Your task to perform on an android device: Go to Reddit.com Image 0: 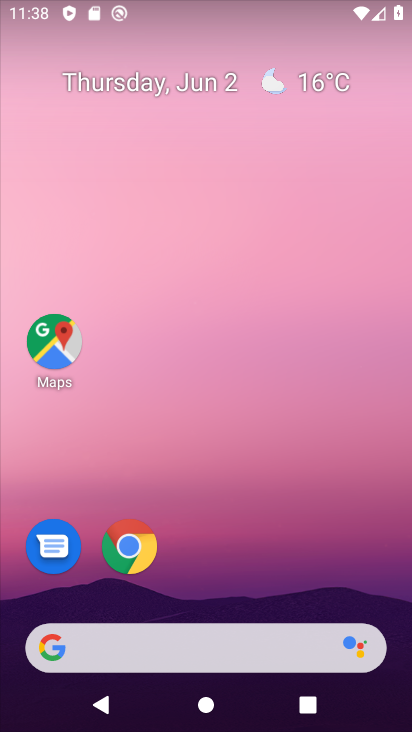
Step 0: drag from (313, 558) to (337, 171)
Your task to perform on an android device: Go to Reddit.com Image 1: 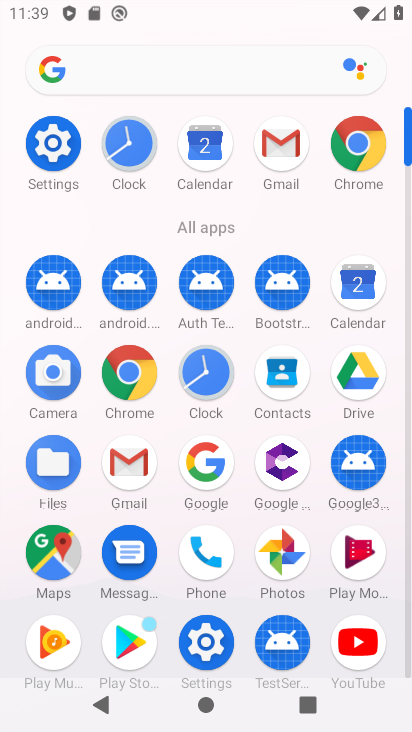
Step 1: click (127, 362)
Your task to perform on an android device: Go to Reddit.com Image 2: 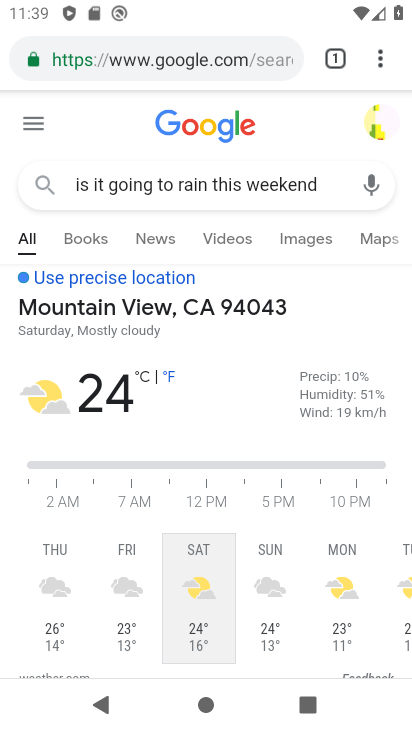
Step 2: click (226, 66)
Your task to perform on an android device: Go to Reddit.com Image 3: 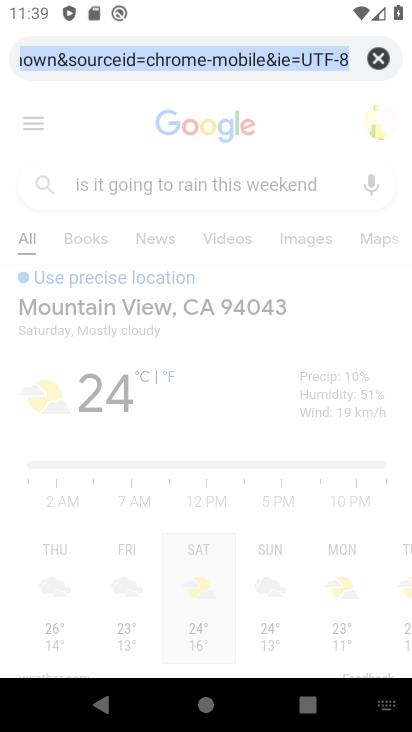
Step 3: click (379, 58)
Your task to perform on an android device: Go to Reddit.com Image 4: 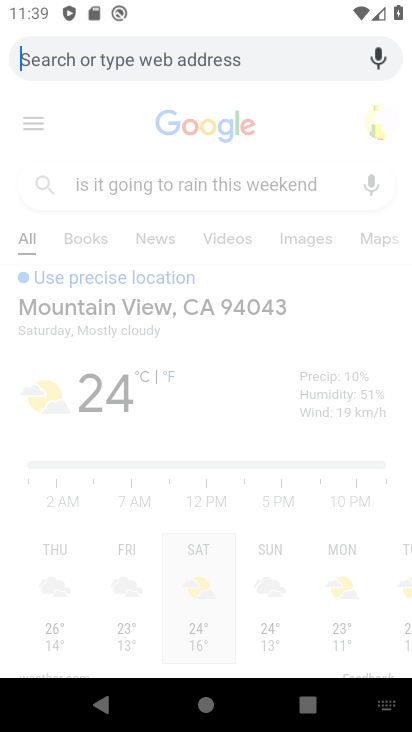
Step 4: type "reddit.com"
Your task to perform on an android device: Go to Reddit.com Image 5: 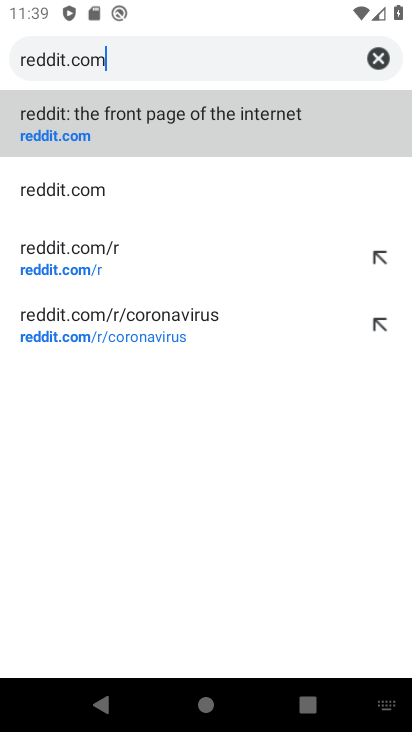
Step 5: click (205, 122)
Your task to perform on an android device: Go to Reddit.com Image 6: 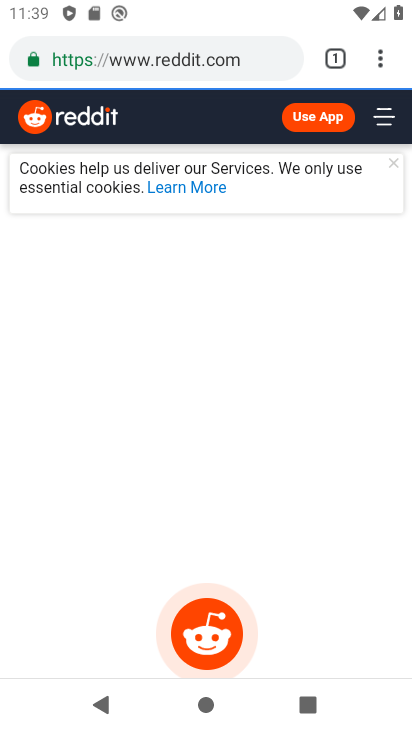
Step 6: task complete